Your task to perform on an android device: change notification settings in the gmail app Image 0: 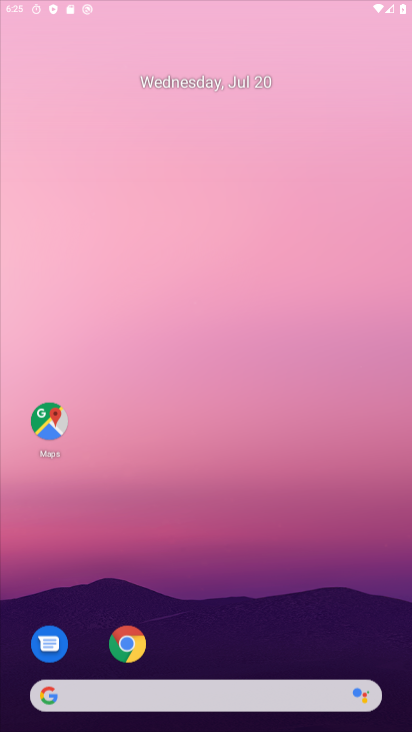
Step 0: press home button
Your task to perform on an android device: change notification settings in the gmail app Image 1: 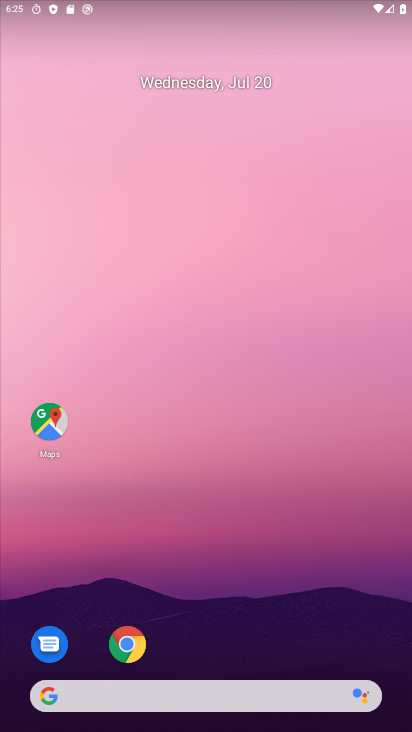
Step 1: drag from (232, 651) to (186, 59)
Your task to perform on an android device: change notification settings in the gmail app Image 2: 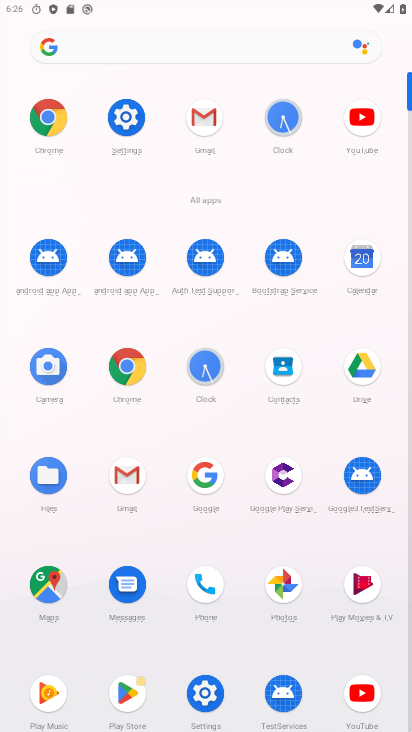
Step 2: click (199, 128)
Your task to perform on an android device: change notification settings in the gmail app Image 3: 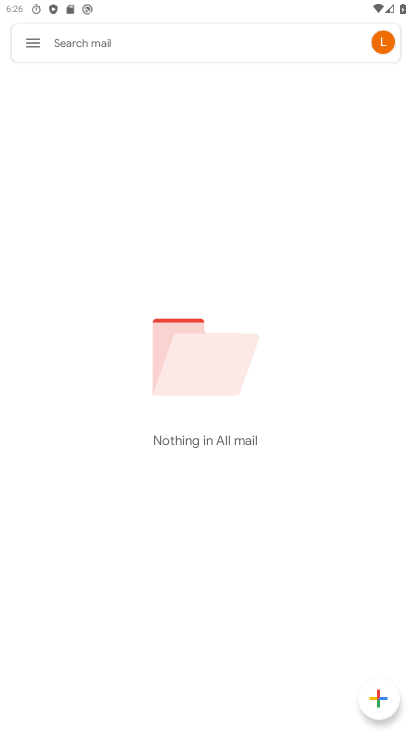
Step 3: click (20, 34)
Your task to perform on an android device: change notification settings in the gmail app Image 4: 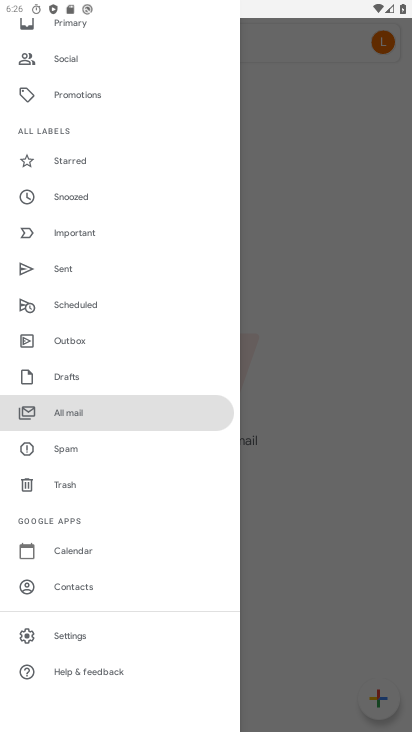
Step 4: click (67, 634)
Your task to perform on an android device: change notification settings in the gmail app Image 5: 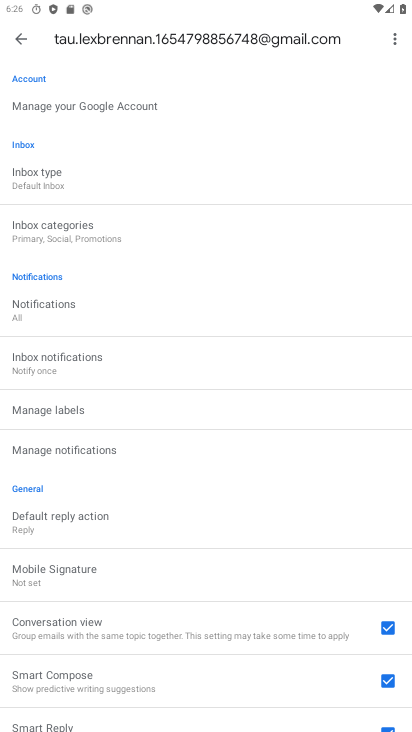
Step 5: click (68, 456)
Your task to perform on an android device: change notification settings in the gmail app Image 6: 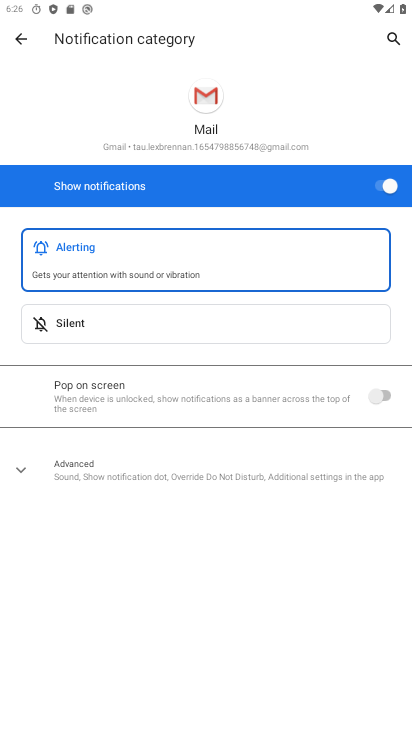
Step 6: click (386, 186)
Your task to perform on an android device: change notification settings in the gmail app Image 7: 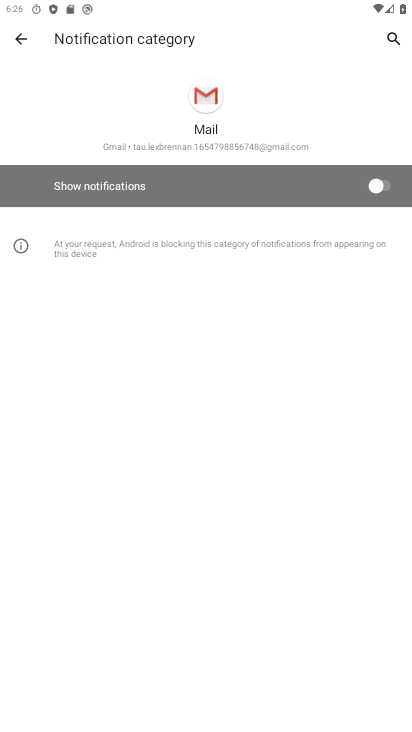
Step 7: task complete